Your task to perform on an android device: When is my next meeting? Image 0: 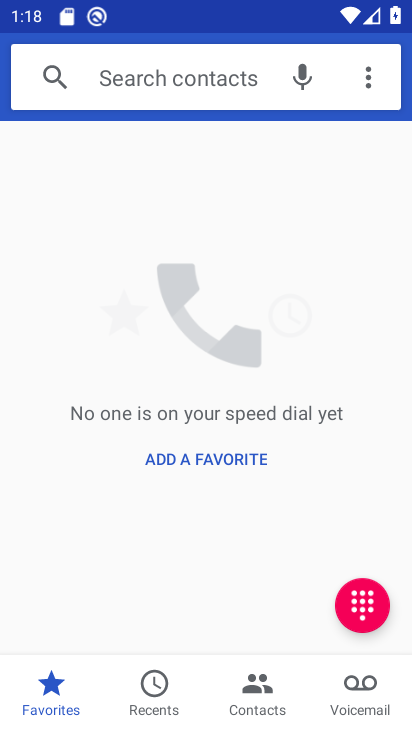
Step 0: press home button
Your task to perform on an android device: When is my next meeting? Image 1: 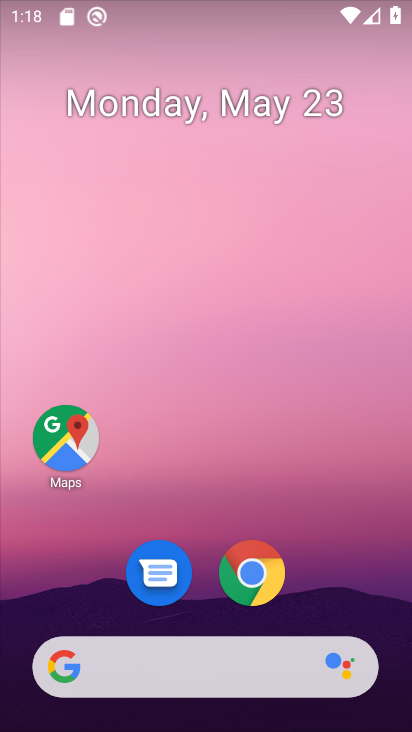
Step 1: click (258, 97)
Your task to perform on an android device: When is my next meeting? Image 2: 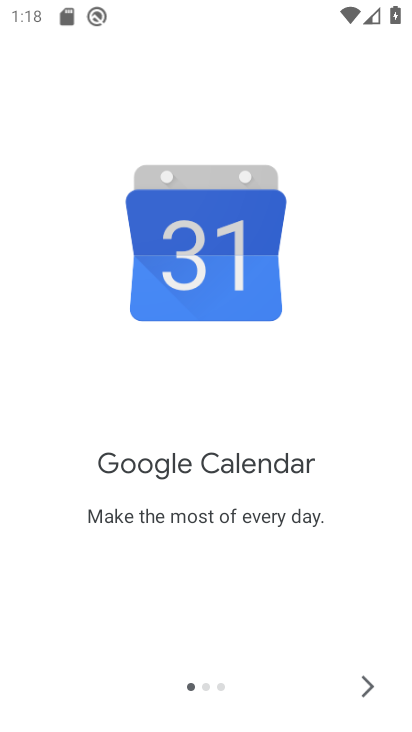
Step 2: click (371, 692)
Your task to perform on an android device: When is my next meeting? Image 3: 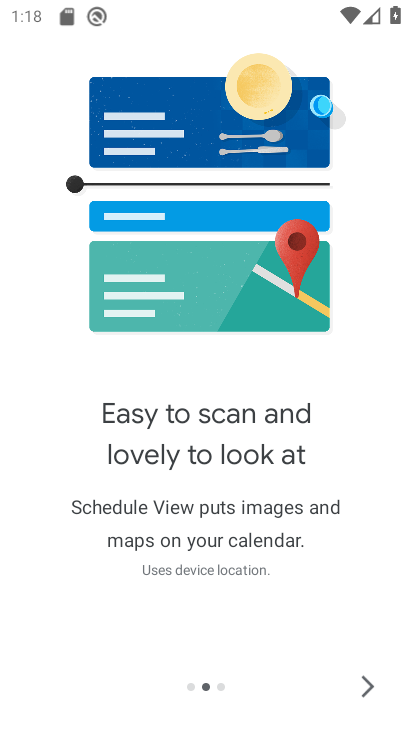
Step 3: click (371, 692)
Your task to perform on an android device: When is my next meeting? Image 4: 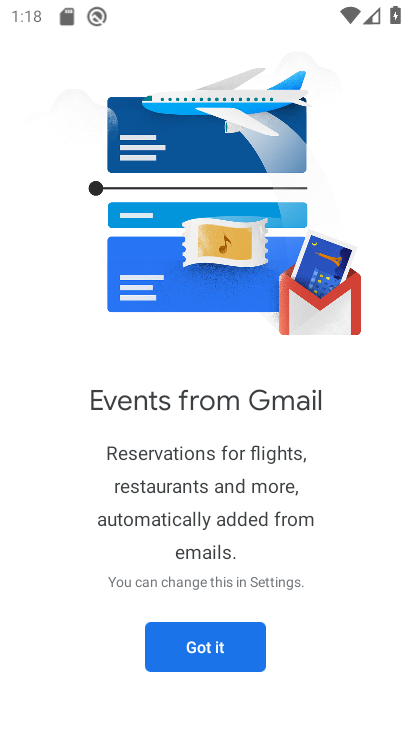
Step 4: click (236, 649)
Your task to perform on an android device: When is my next meeting? Image 5: 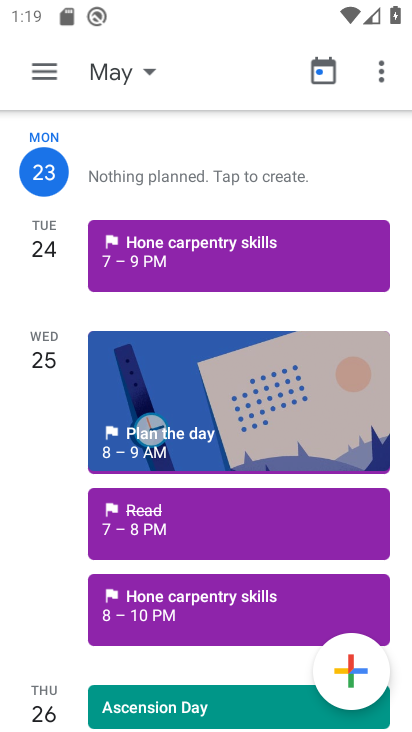
Step 5: task complete